Your task to perform on an android device: Open the phone app and click the voicemail tab. Image 0: 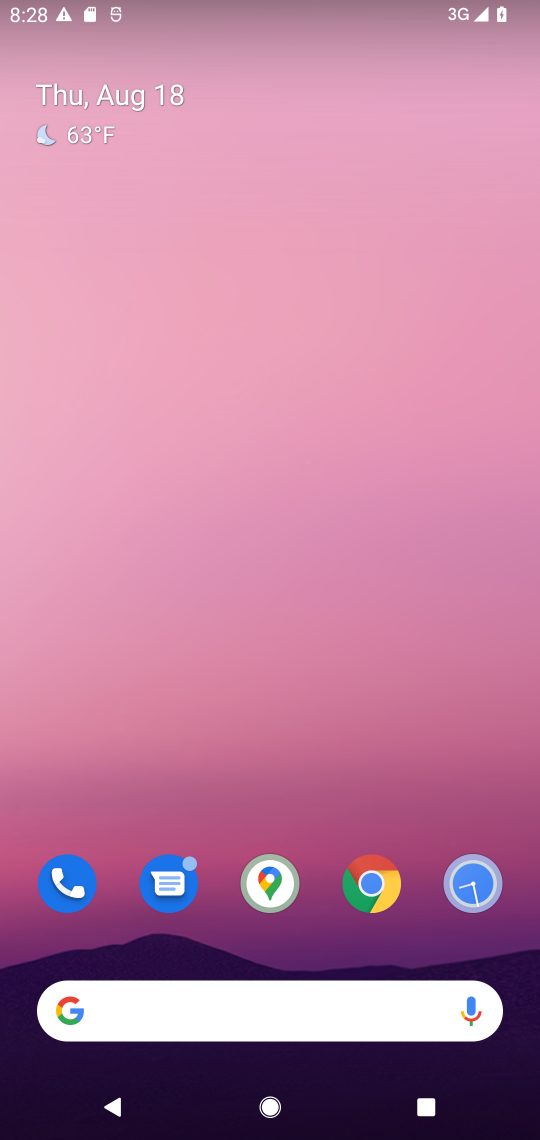
Step 0: drag from (236, 784) to (470, 217)
Your task to perform on an android device: Open the phone app and click the voicemail tab. Image 1: 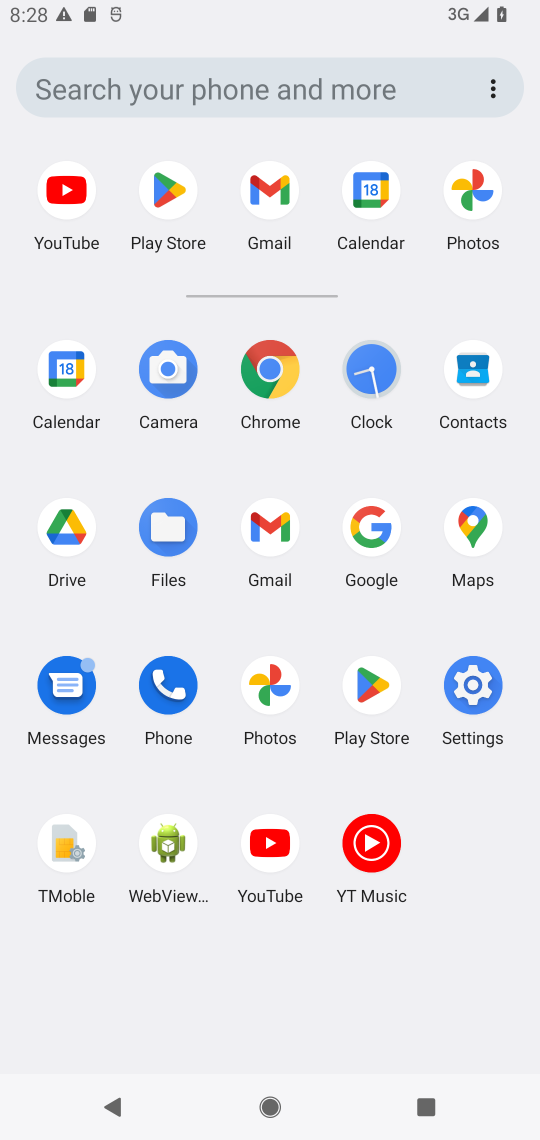
Step 1: click (176, 702)
Your task to perform on an android device: Open the phone app and click the voicemail tab. Image 2: 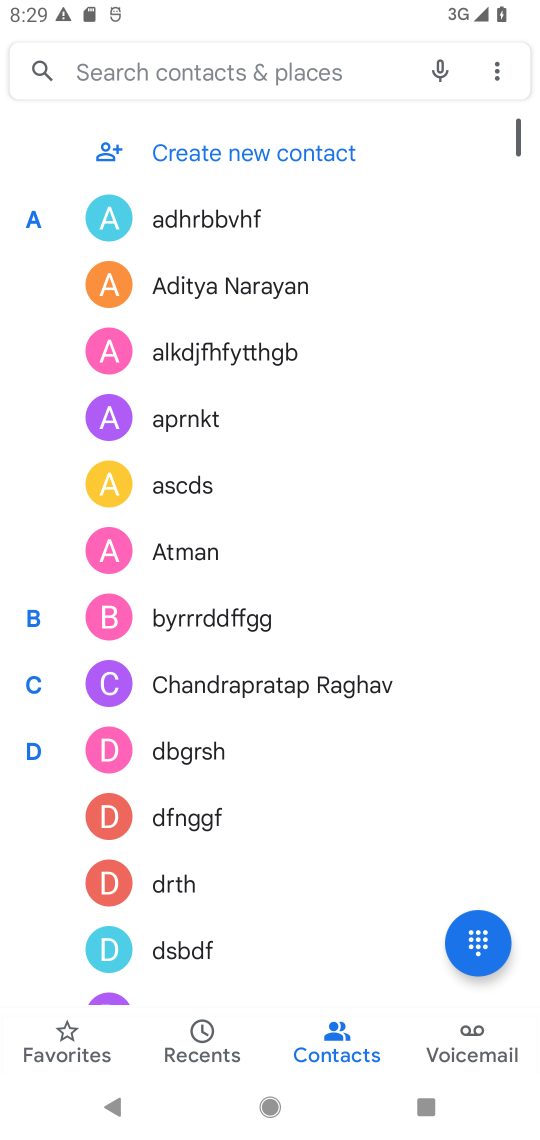
Step 2: click (456, 1041)
Your task to perform on an android device: Open the phone app and click the voicemail tab. Image 3: 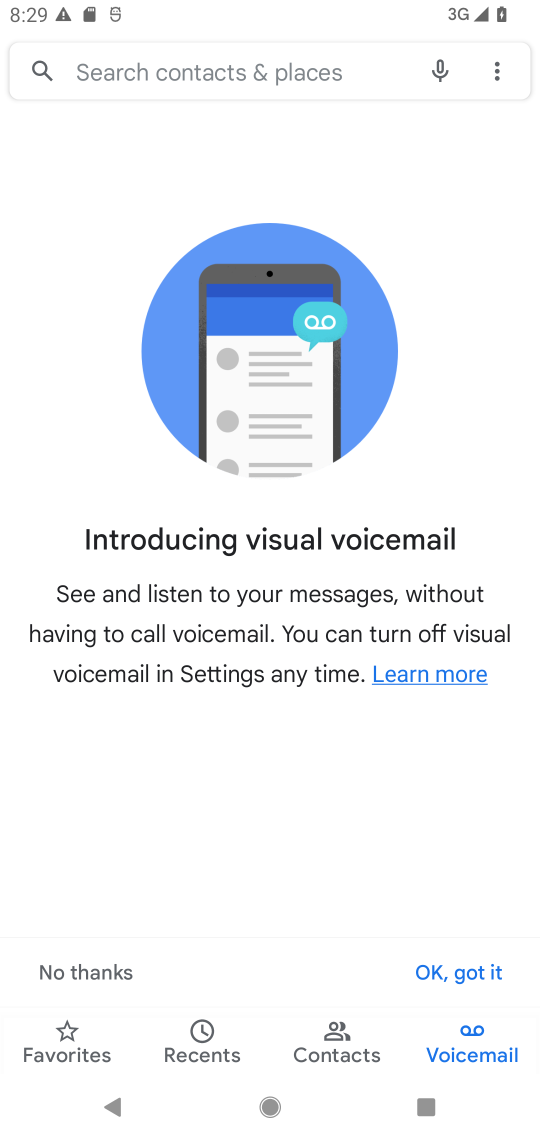
Step 3: task complete